Your task to perform on an android device: install app "ColorNote Notepad Notes" Image 0: 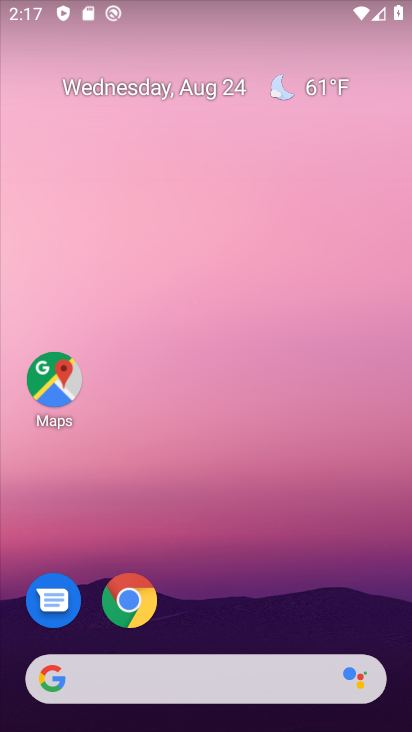
Step 0: drag from (292, 591) to (296, 4)
Your task to perform on an android device: install app "ColorNote Notepad Notes" Image 1: 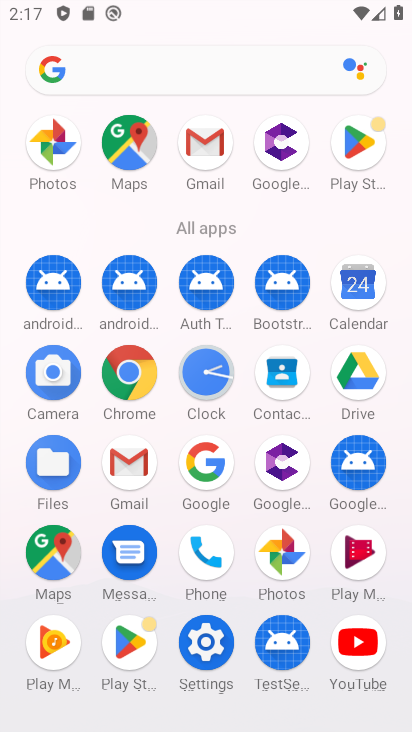
Step 1: click (362, 145)
Your task to perform on an android device: install app "ColorNote Notepad Notes" Image 2: 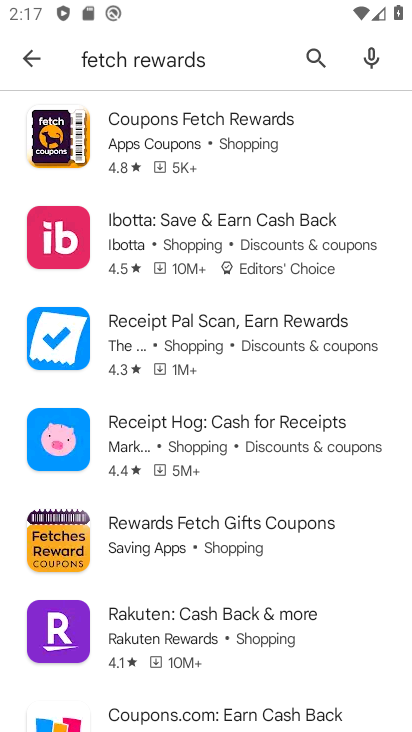
Step 2: click (319, 58)
Your task to perform on an android device: install app "ColorNote Notepad Notes" Image 3: 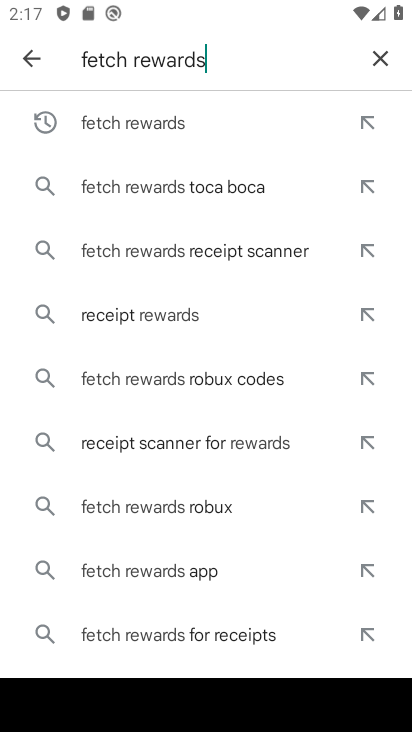
Step 3: click (375, 57)
Your task to perform on an android device: install app "ColorNote Notepad Notes" Image 4: 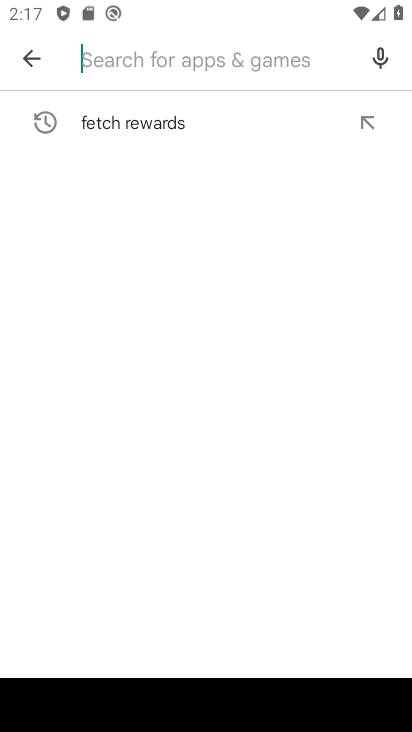
Step 4: click (142, 67)
Your task to perform on an android device: install app "ColorNote Notepad Notes" Image 5: 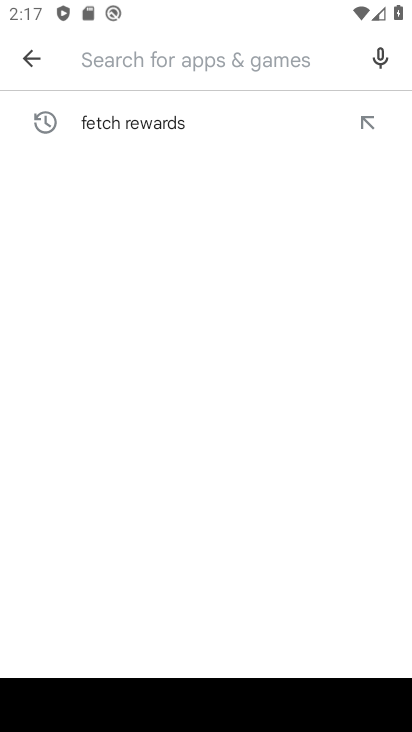
Step 5: click (152, 67)
Your task to perform on an android device: install app "ColorNote Notepad Notes" Image 6: 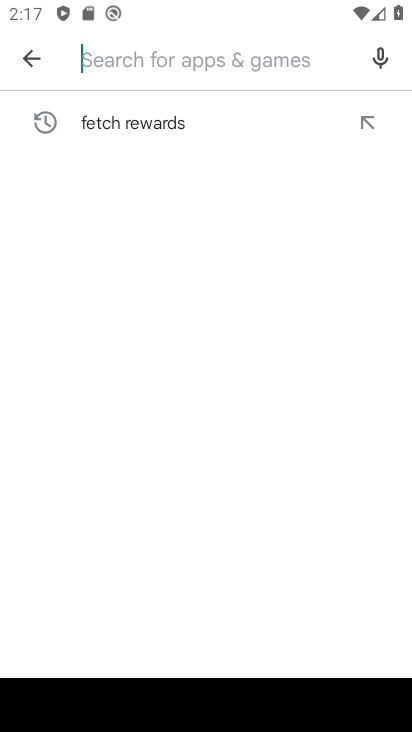
Step 6: type "ColorNote Notepad Notes"
Your task to perform on an android device: install app "ColorNote Notepad Notes" Image 7: 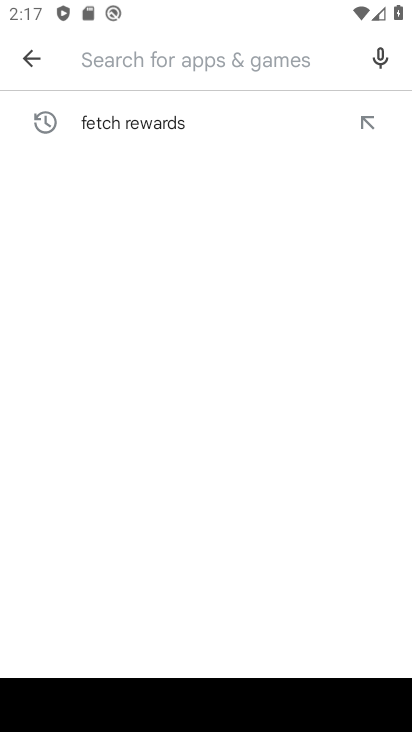
Step 7: click (304, 462)
Your task to perform on an android device: install app "ColorNote Notepad Notes" Image 8: 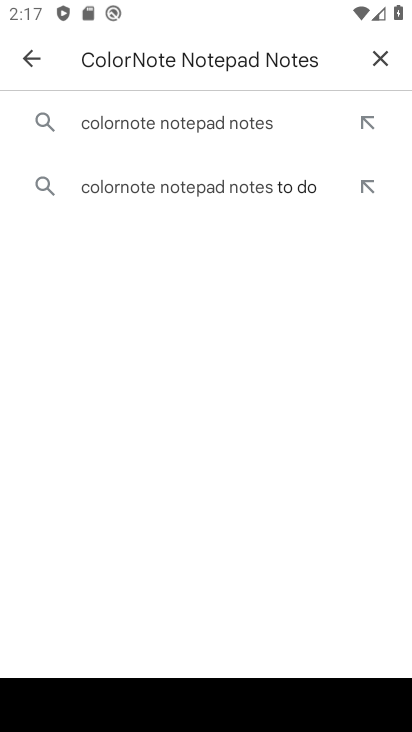
Step 8: click (181, 130)
Your task to perform on an android device: install app "ColorNote Notepad Notes" Image 9: 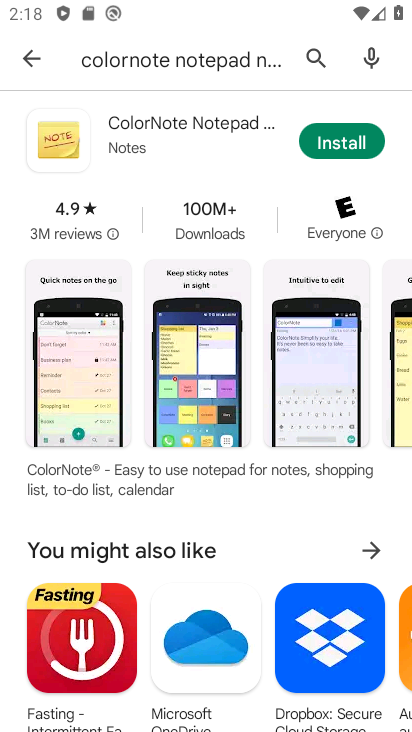
Step 9: click (327, 150)
Your task to perform on an android device: install app "ColorNote Notepad Notes" Image 10: 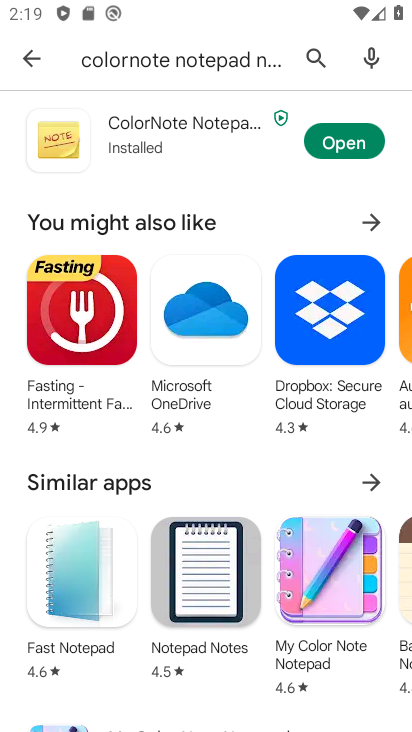
Step 10: task complete